Your task to perform on an android device: Add "logitech g pro" to the cart on walmart Image 0: 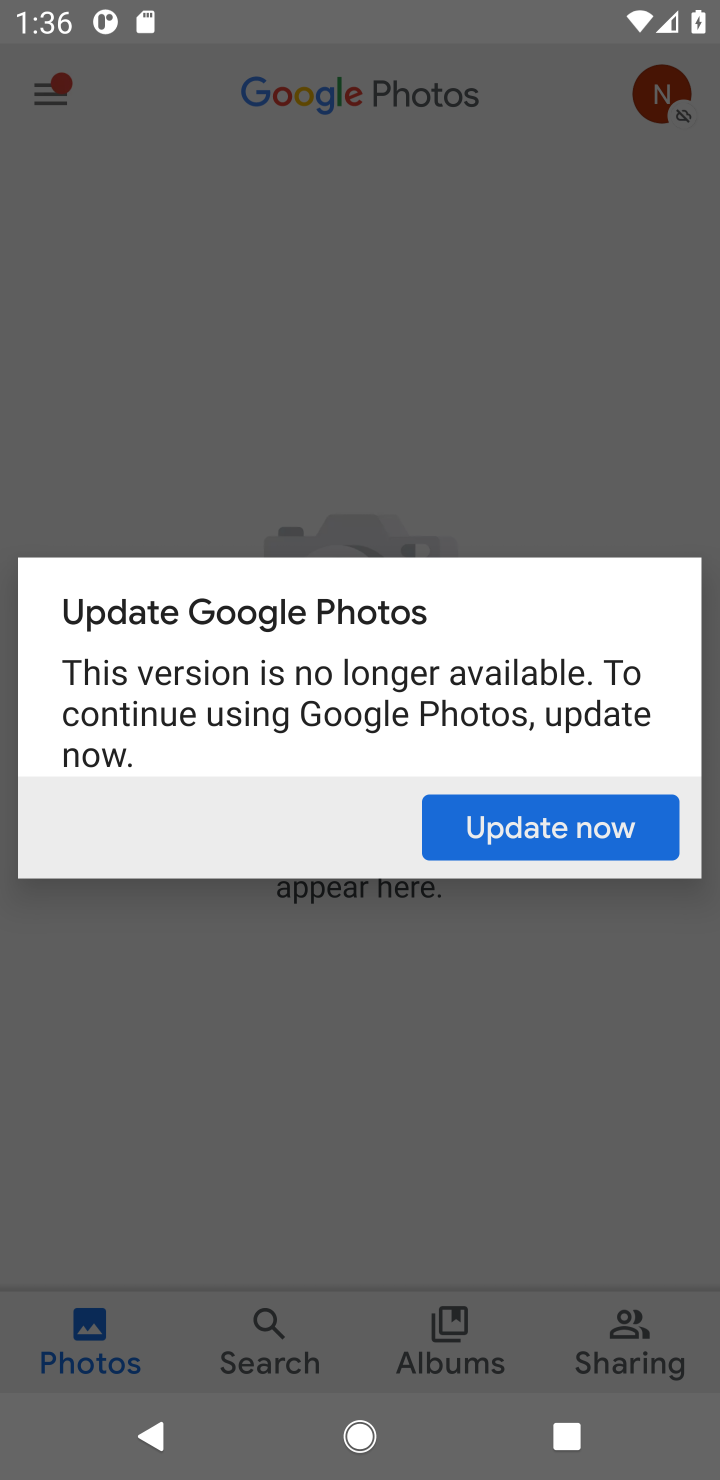
Step 0: press home button
Your task to perform on an android device: Add "logitech g pro" to the cart on walmart Image 1: 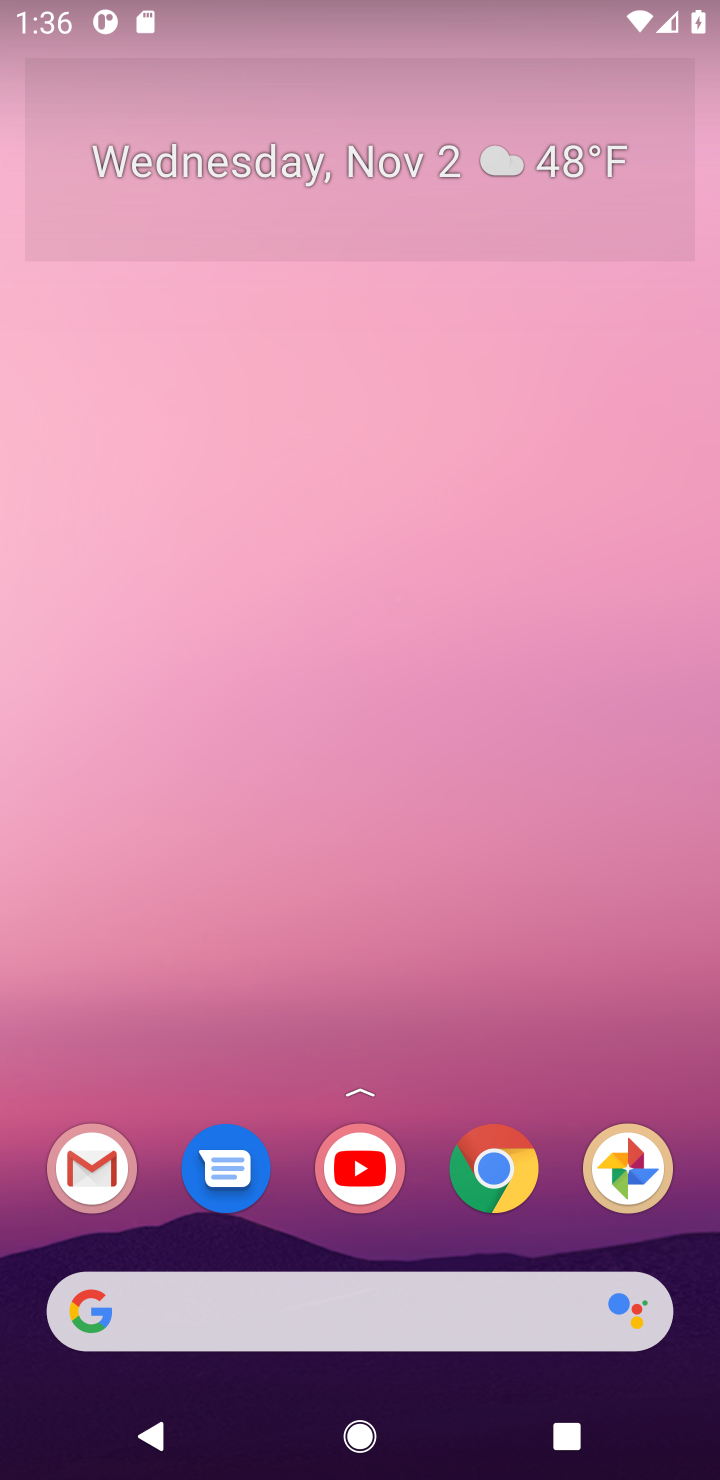
Step 1: click (315, 1278)
Your task to perform on an android device: Add "logitech g pro" to the cart on walmart Image 2: 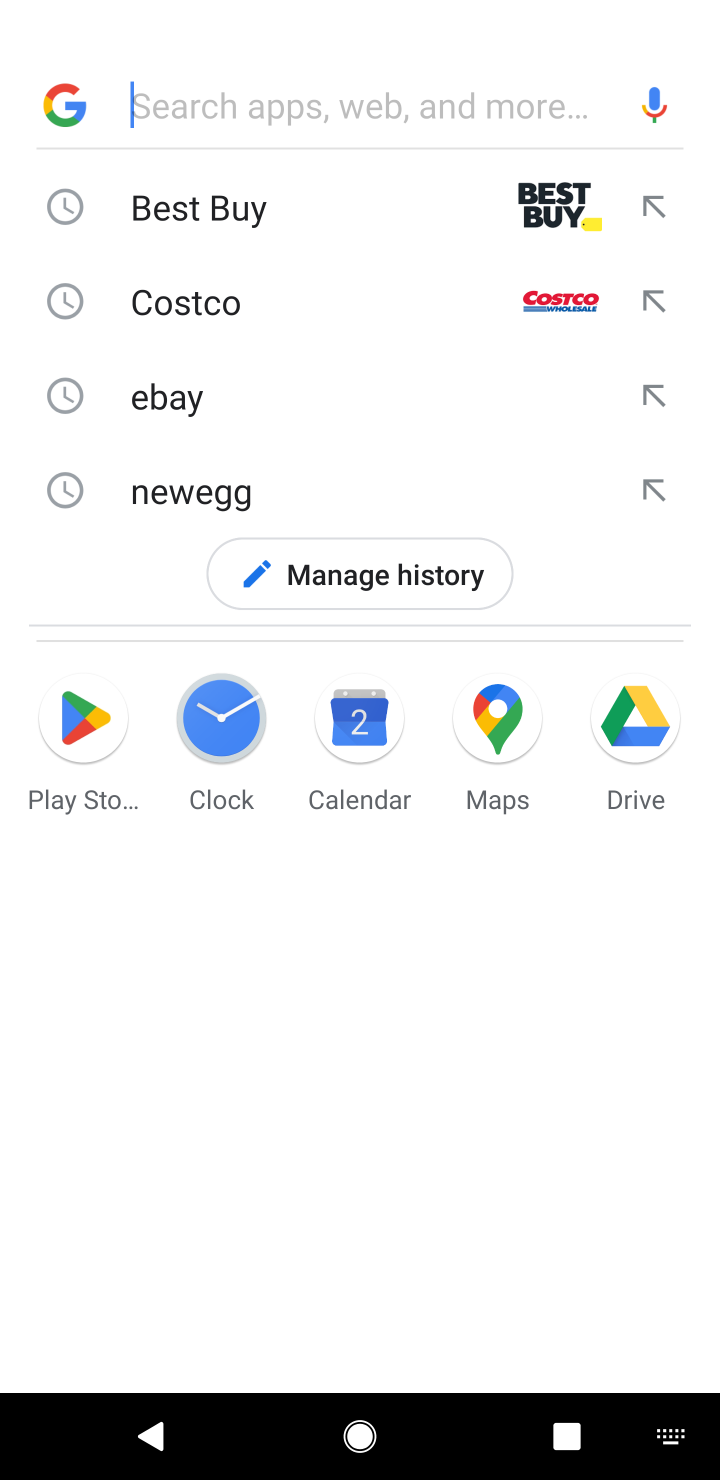
Step 2: type "macbook pro 15 inch"
Your task to perform on an android device: Add "logitech g pro" to the cart on walmart Image 3: 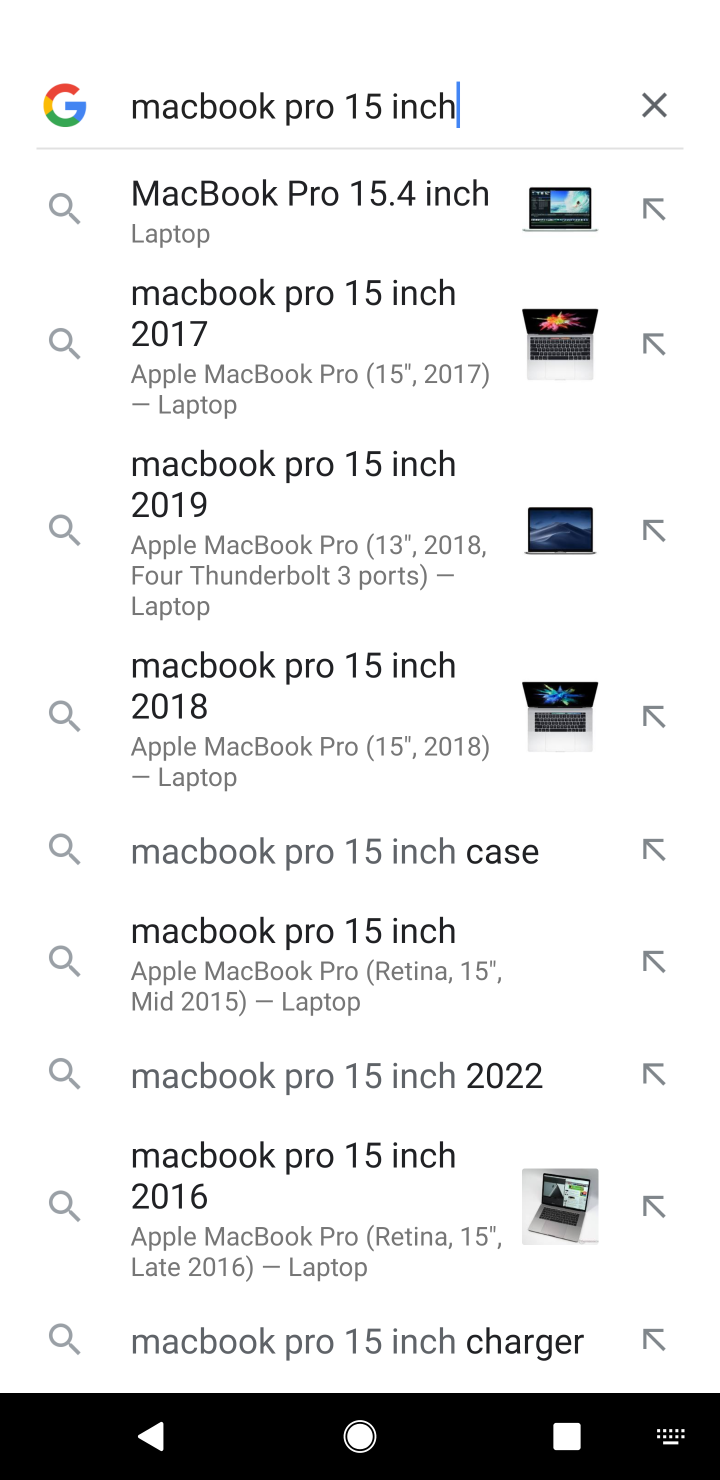
Step 3: press home button
Your task to perform on an android device: Add "logitech g pro" to the cart on walmart Image 4: 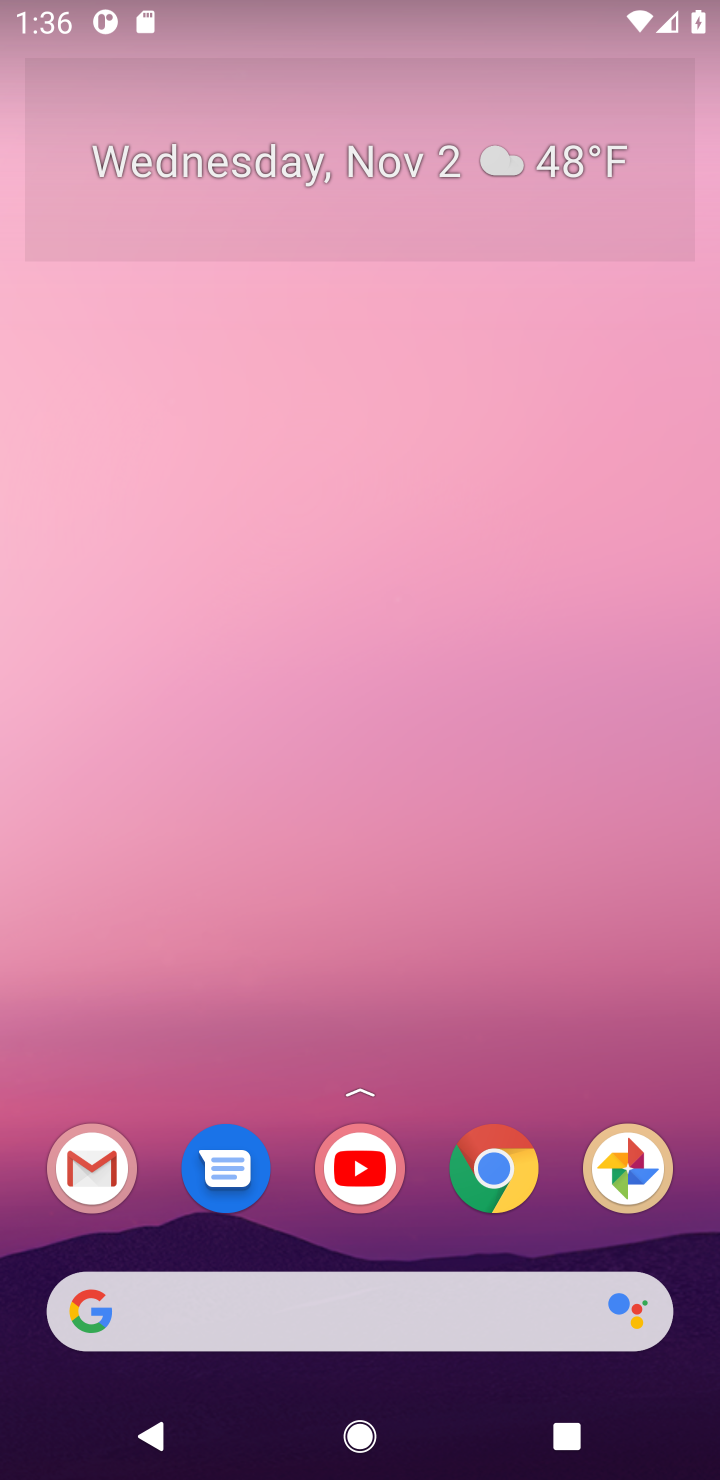
Step 4: click (291, 1332)
Your task to perform on an android device: Add "logitech g pro" to the cart on walmart Image 5: 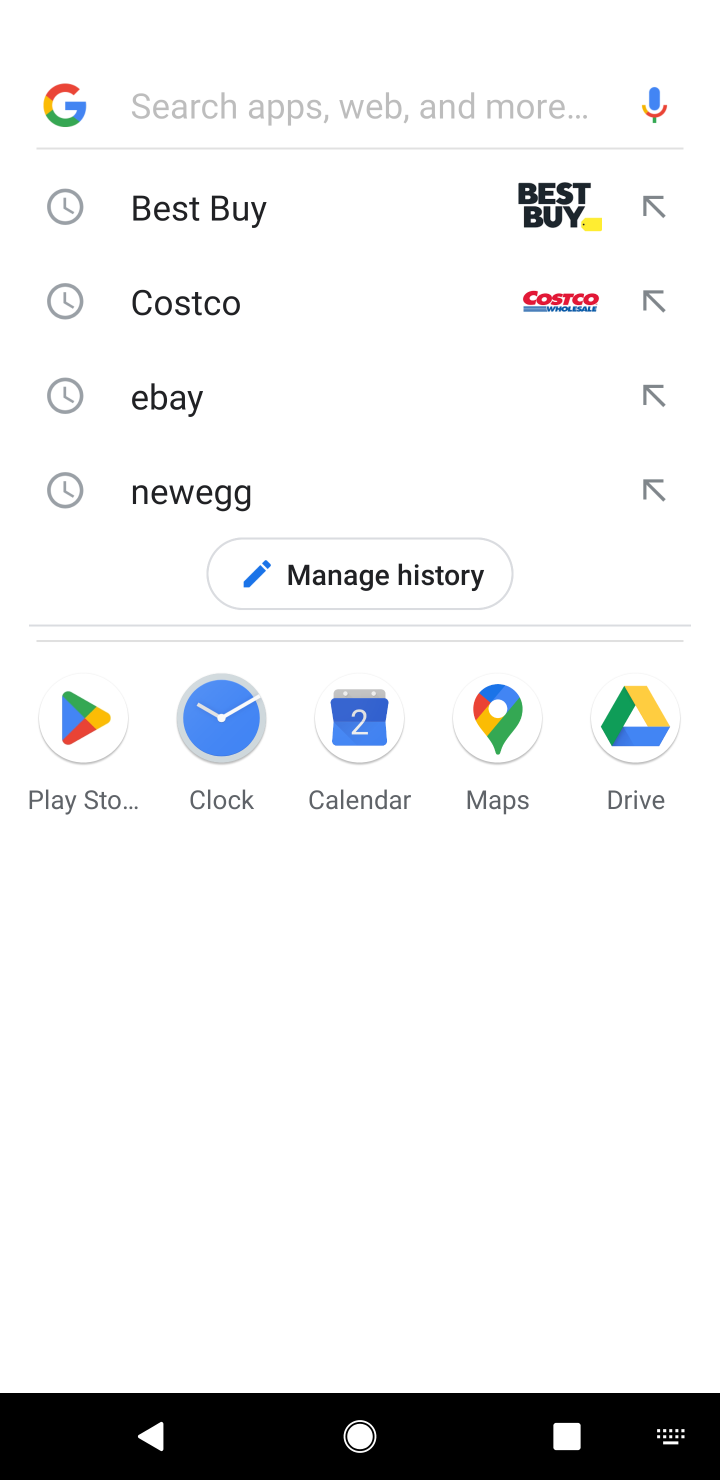
Step 5: type "walmart"
Your task to perform on an android device: Add "logitech g pro" to the cart on walmart Image 6: 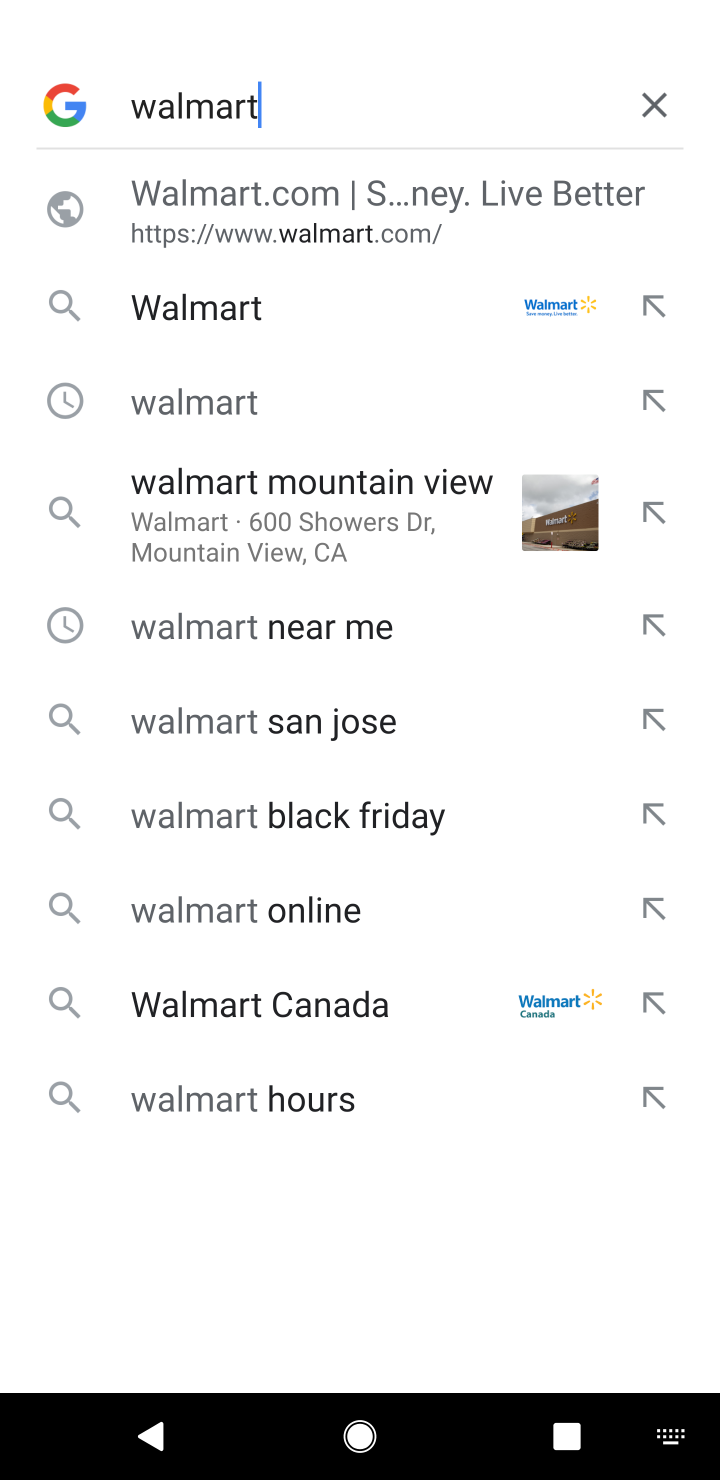
Step 6: click (372, 247)
Your task to perform on an android device: Add "logitech g pro" to the cart on walmart Image 7: 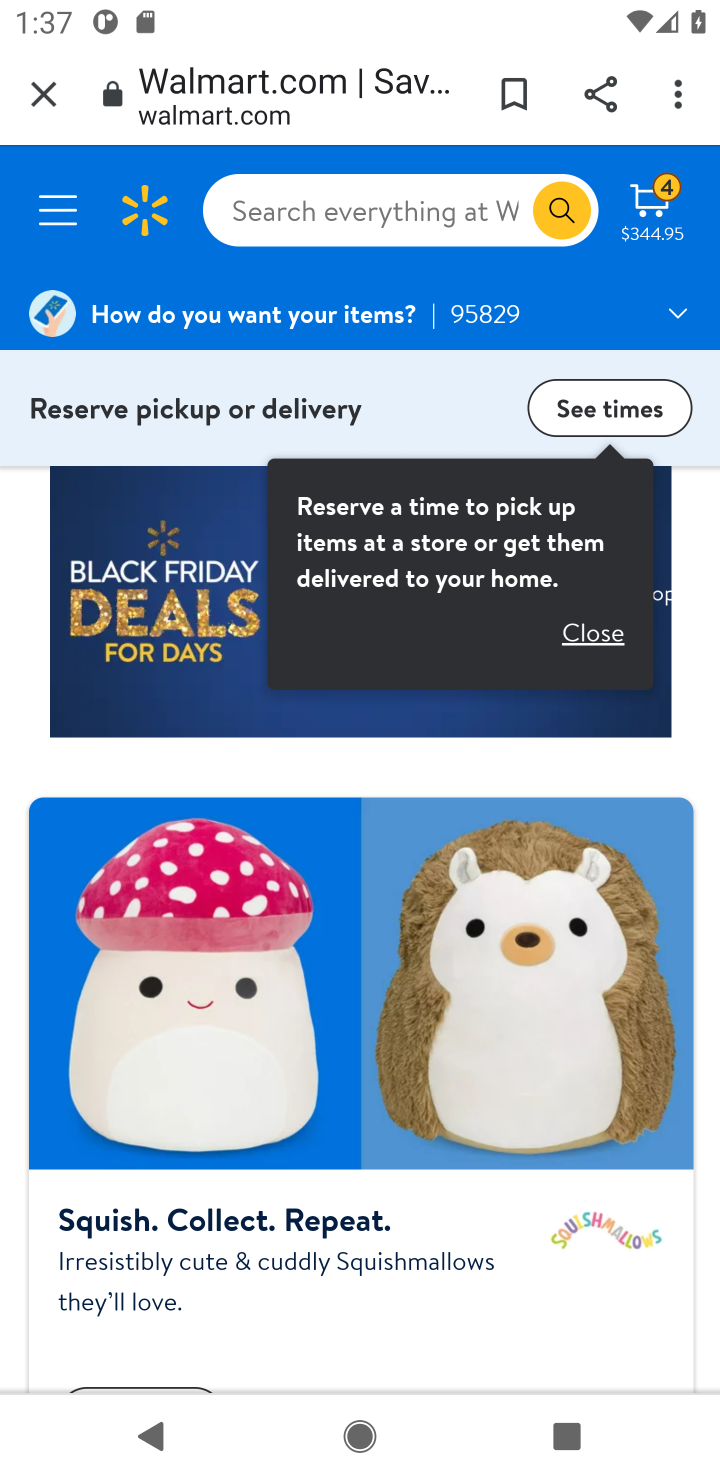
Step 7: click (348, 208)
Your task to perform on an android device: Add "logitech g pro" to the cart on walmart Image 8: 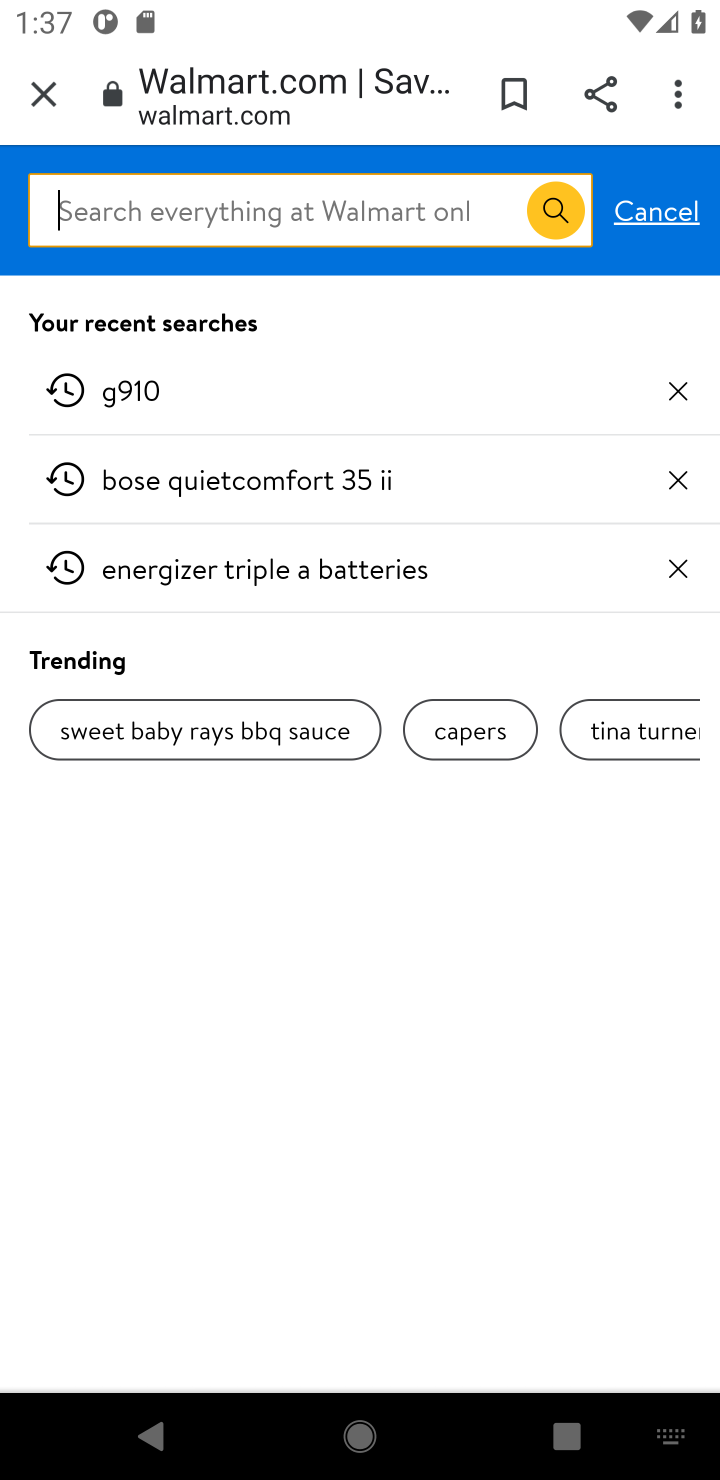
Step 8: type "logitech g pro"
Your task to perform on an android device: Add "logitech g pro" to the cart on walmart Image 9: 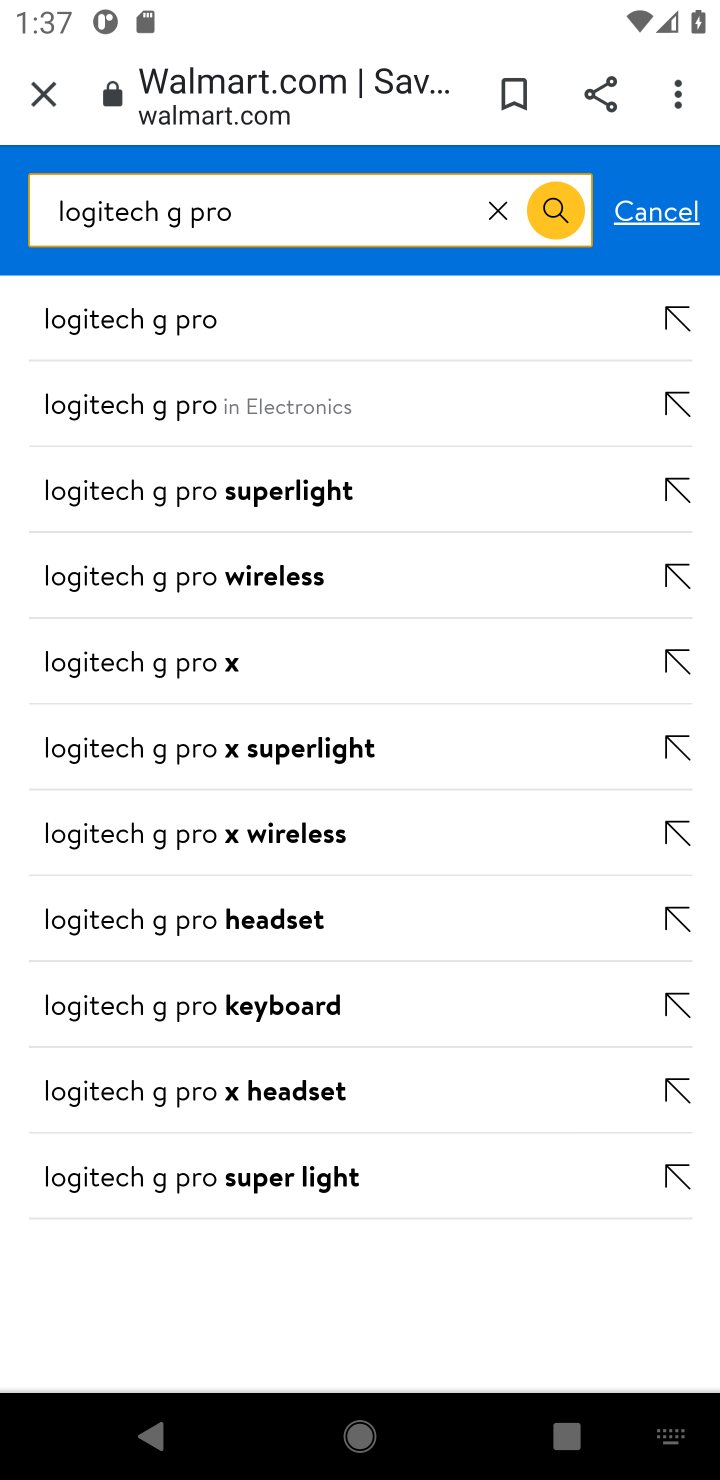
Step 9: click (147, 320)
Your task to perform on an android device: Add "logitech g pro" to the cart on walmart Image 10: 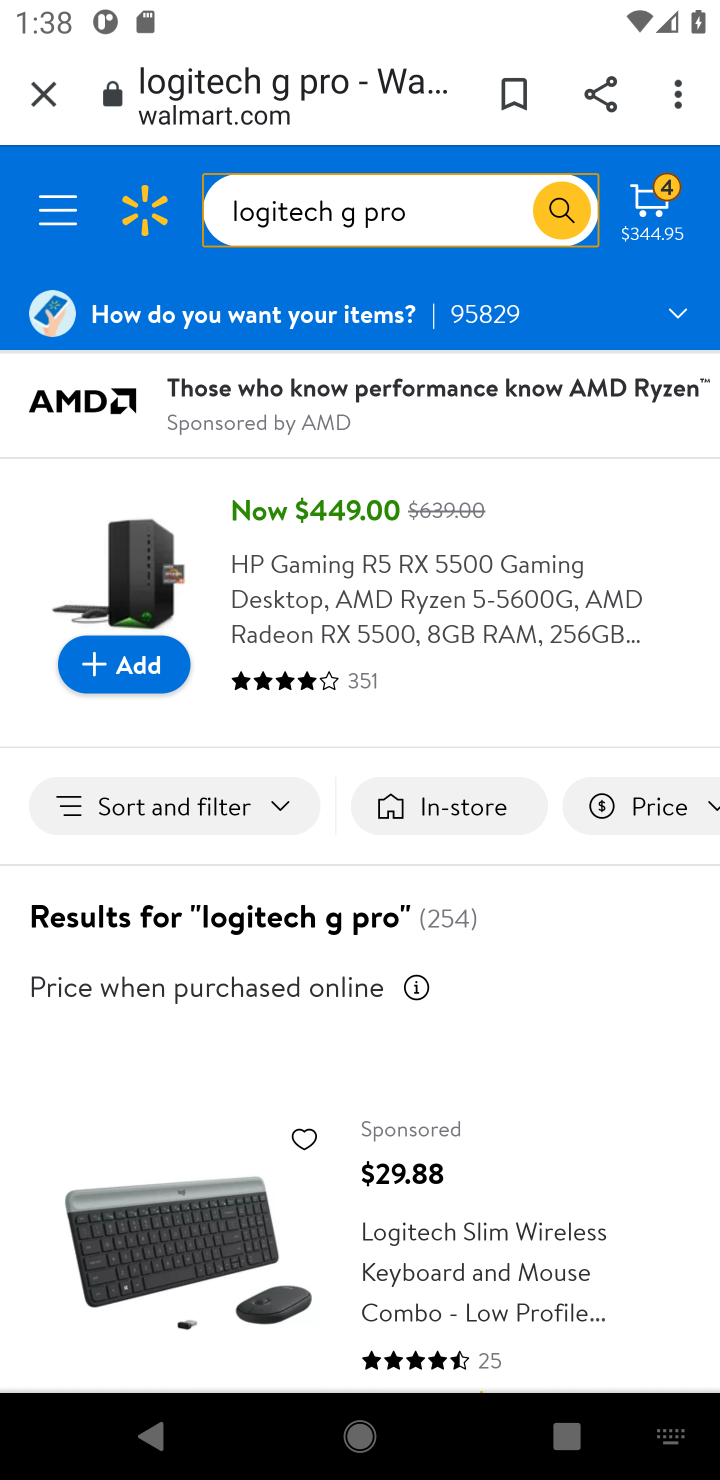
Step 10: drag from (473, 977) to (530, 531)
Your task to perform on an android device: Add "logitech g pro" to the cart on walmart Image 11: 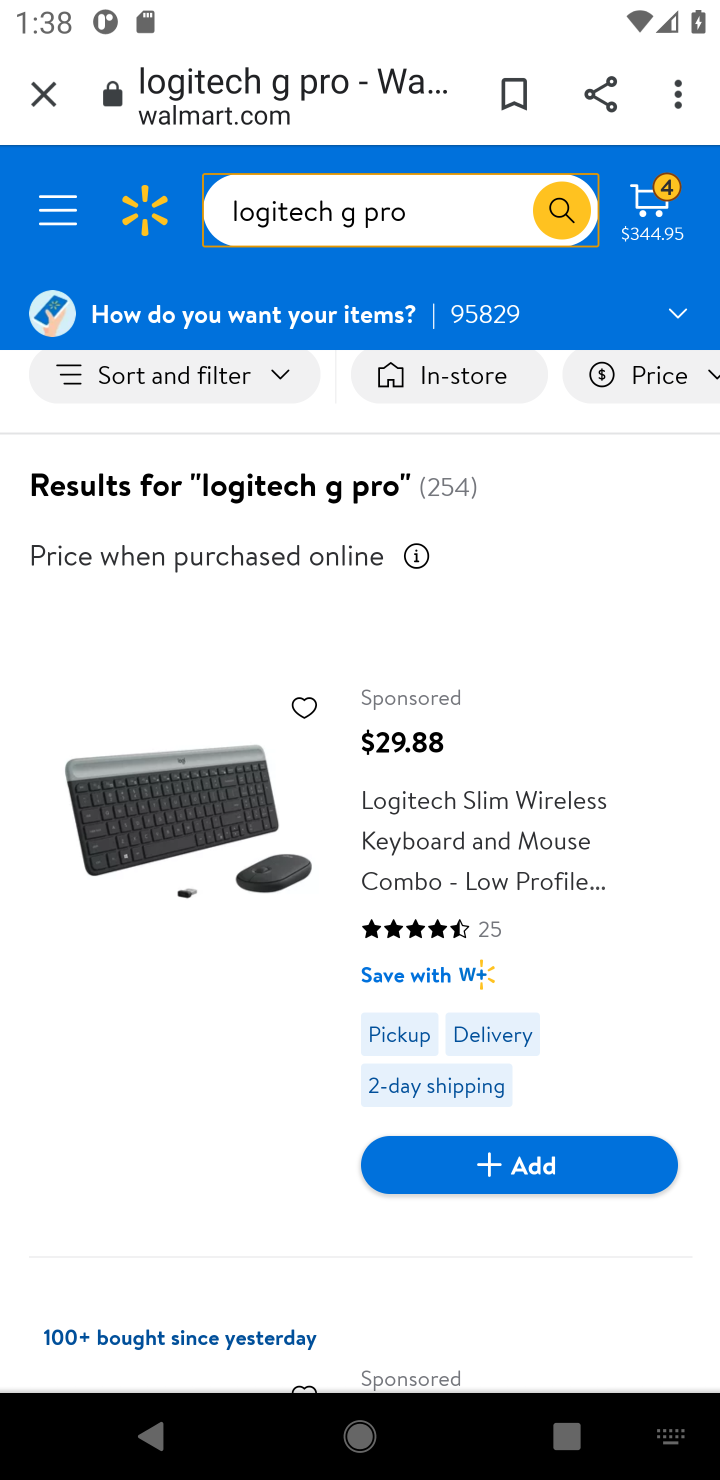
Step 11: click (528, 1163)
Your task to perform on an android device: Add "logitech g pro" to the cart on walmart Image 12: 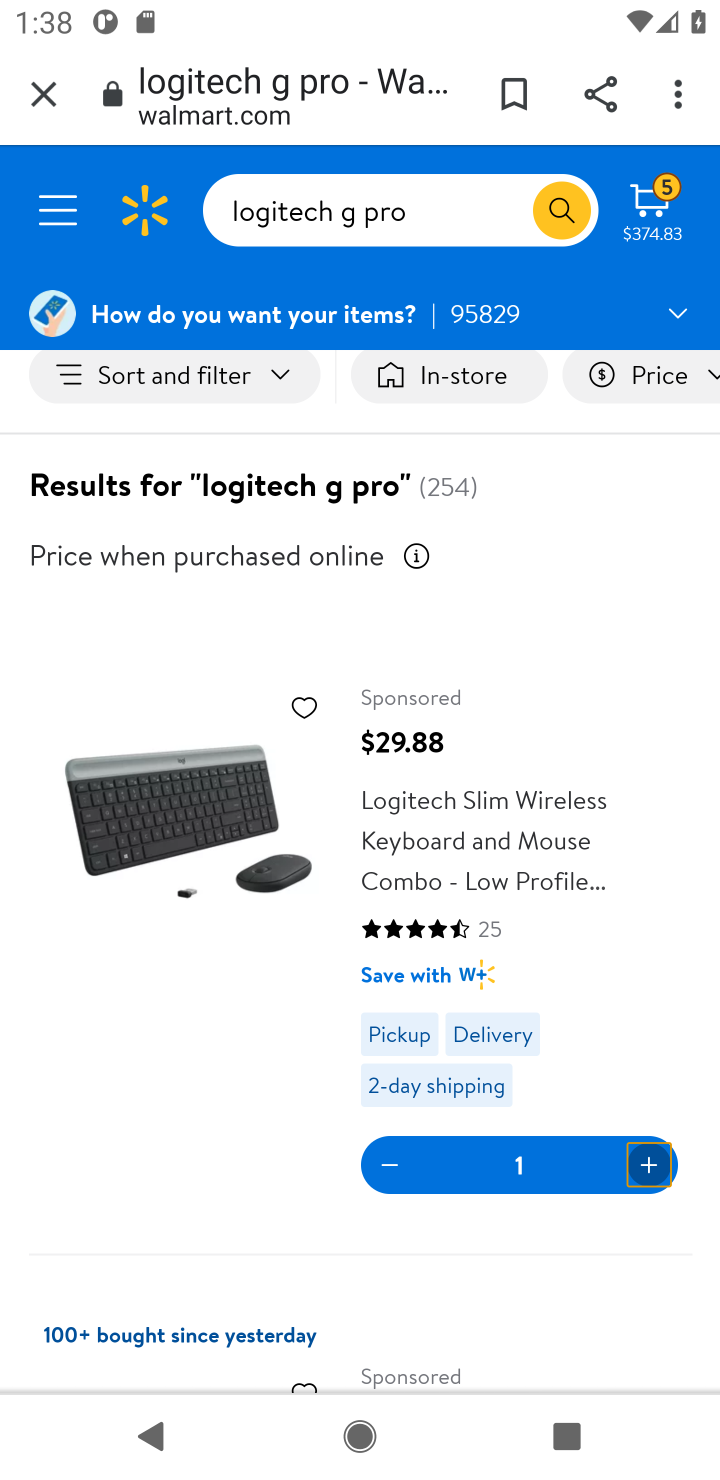
Step 12: click (647, 209)
Your task to perform on an android device: Add "logitech g pro" to the cart on walmart Image 13: 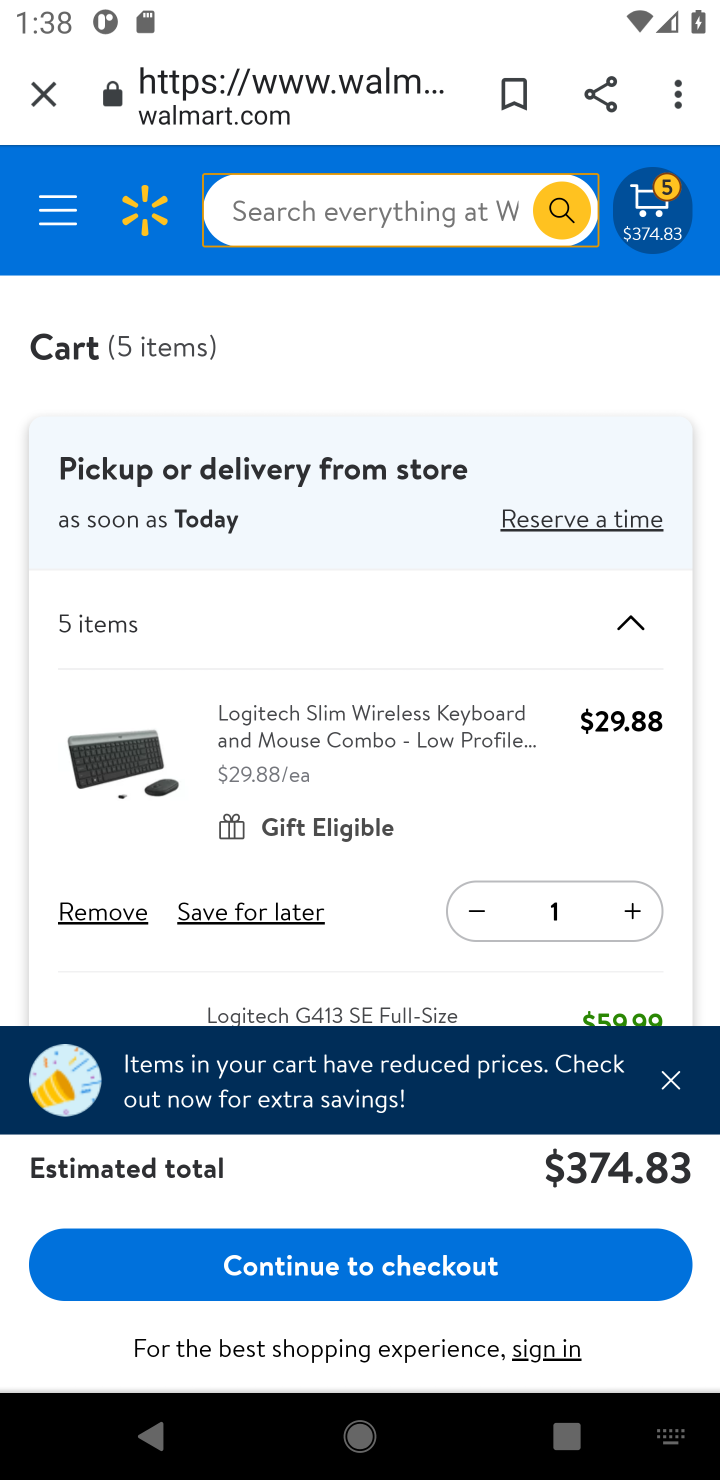
Step 13: task complete